Your task to perform on an android device: Go to calendar. Show me events next week Image 0: 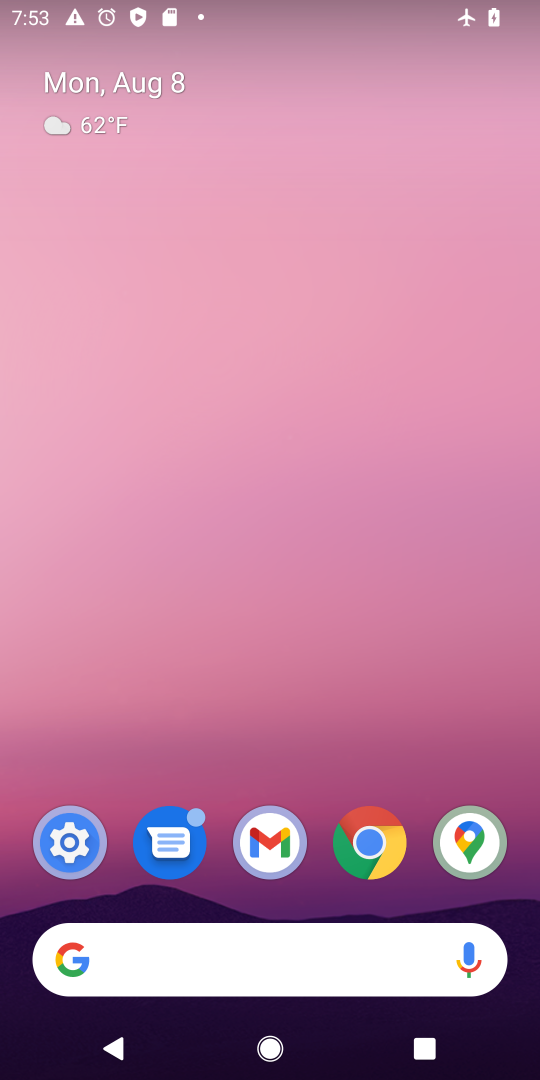
Step 0: drag from (504, 1011) to (428, 192)
Your task to perform on an android device: Go to calendar. Show me events next week Image 1: 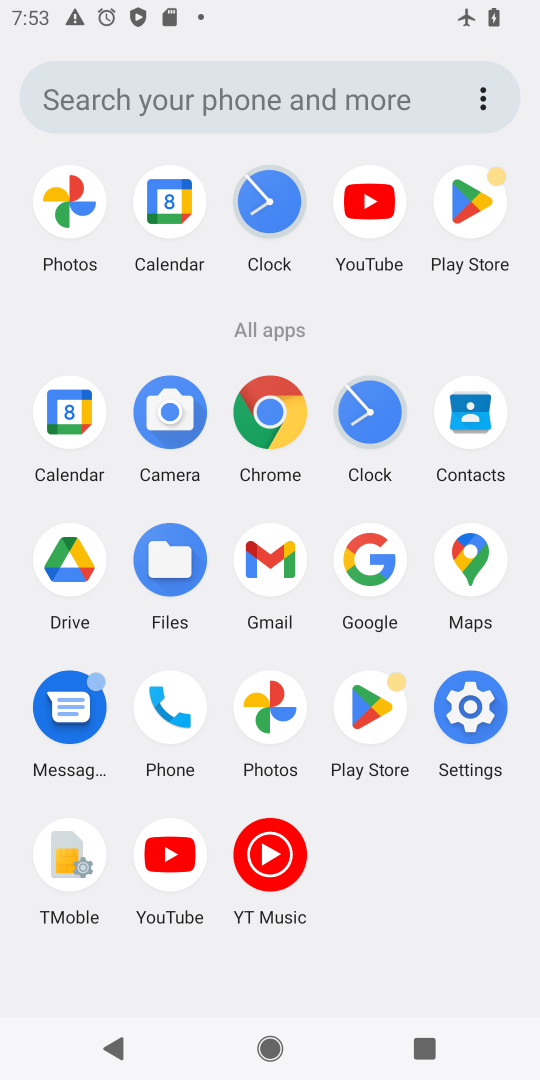
Step 1: click (53, 414)
Your task to perform on an android device: Go to calendar. Show me events next week Image 2: 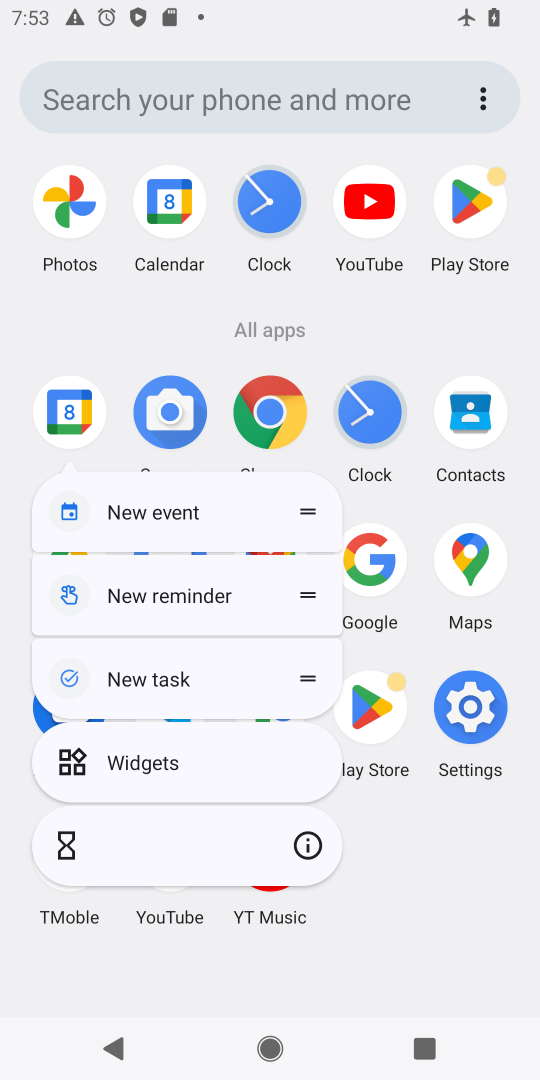
Step 2: click (65, 407)
Your task to perform on an android device: Go to calendar. Show me events next week Image 3: 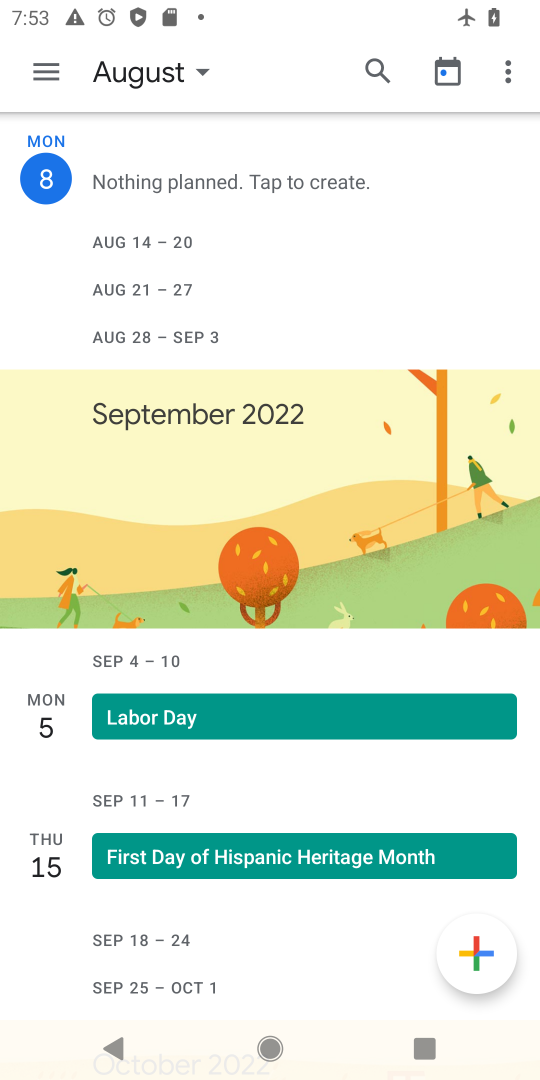
Step 3: drag from (294, 938) to (262, 418)
Your task to perform on an android device: Go to calendar. Show me events next week Image 4: 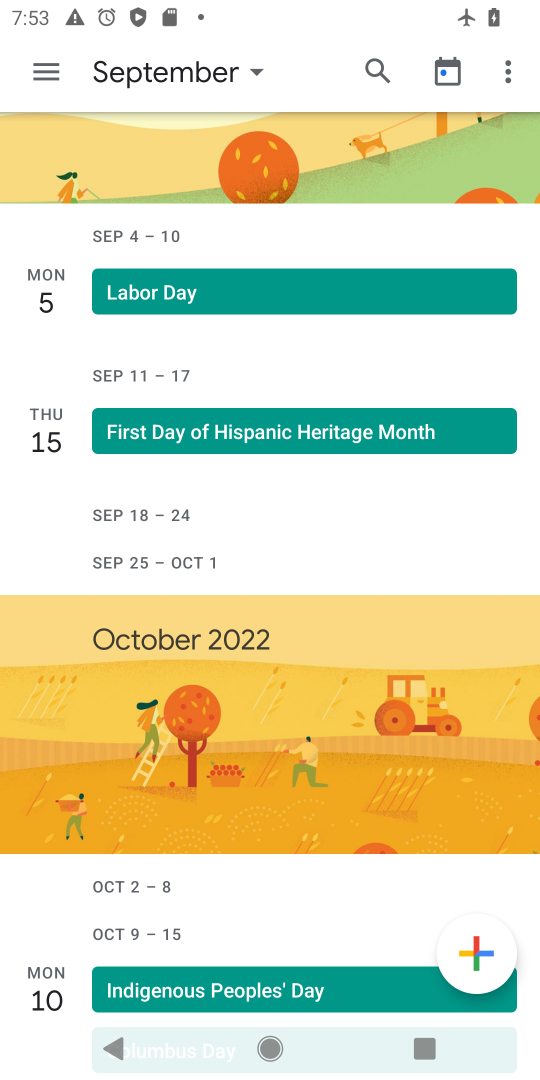
Step 4: drag from (337, 211) to (326, 869)
Your task to perform on an android device: Go to calendar. Show me events next week Image 5: 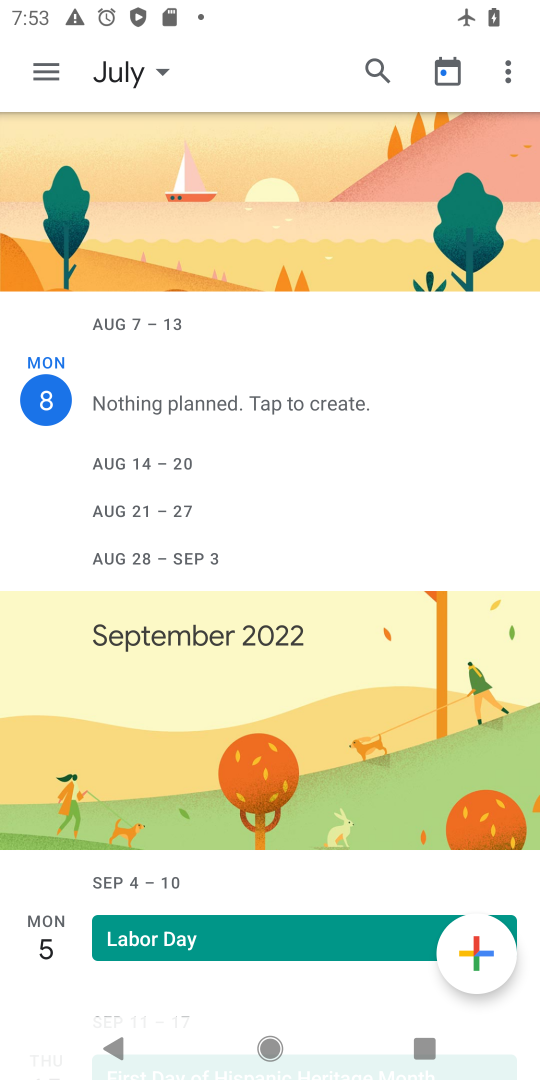
Step 5: click (155, 70)
Your task to perform on an android device: Go to calendar. Show me events next week Image 6: 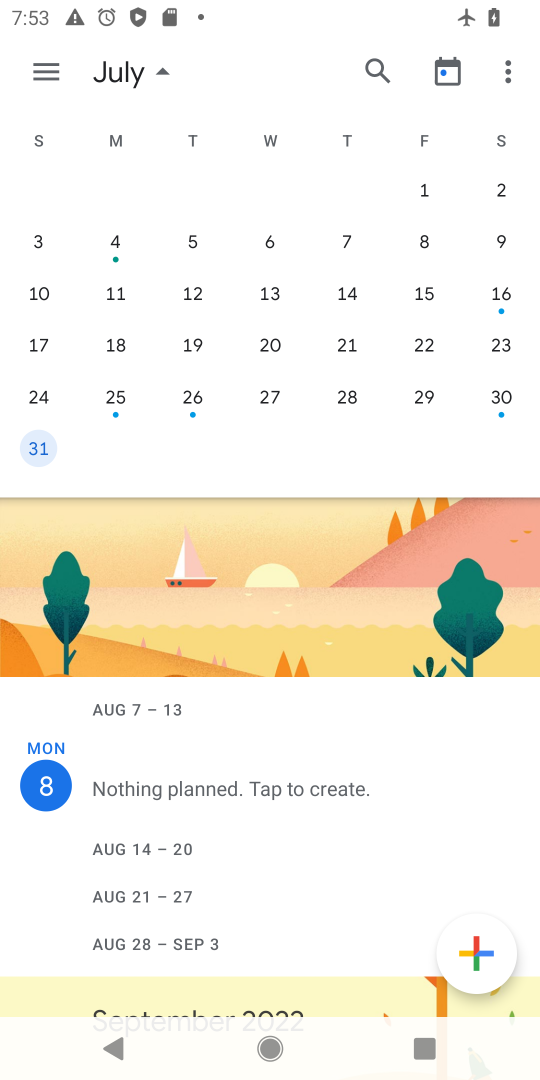
Step 6: drag from (456, 320) to (29, 369)
Your task to perform on an android device: Go to calendar. Show me events next week Image 7: 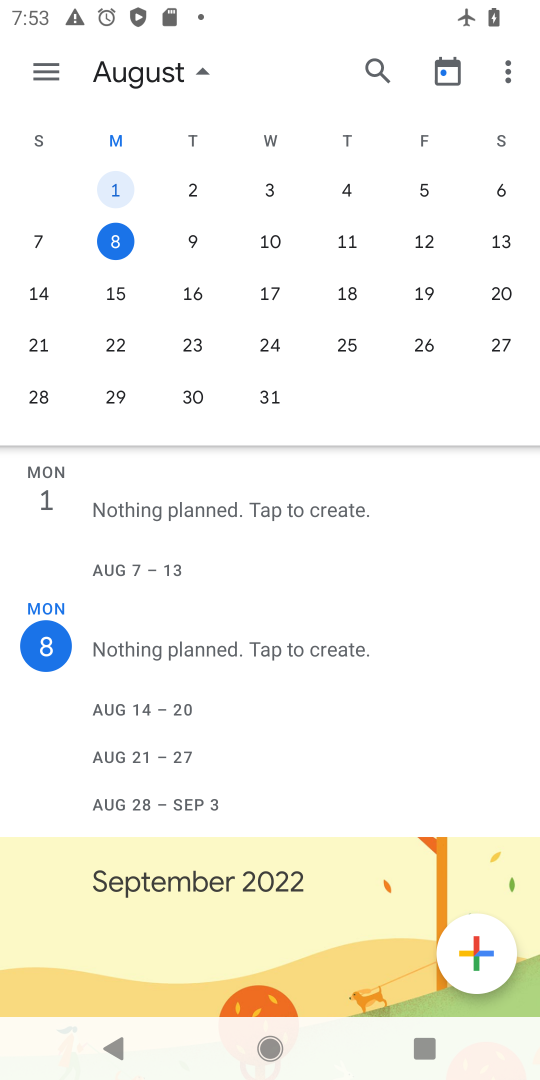
Step 7: click (180, 301)
Your task to perform on an android device: Go to calendar. Show me events next week Image 8: 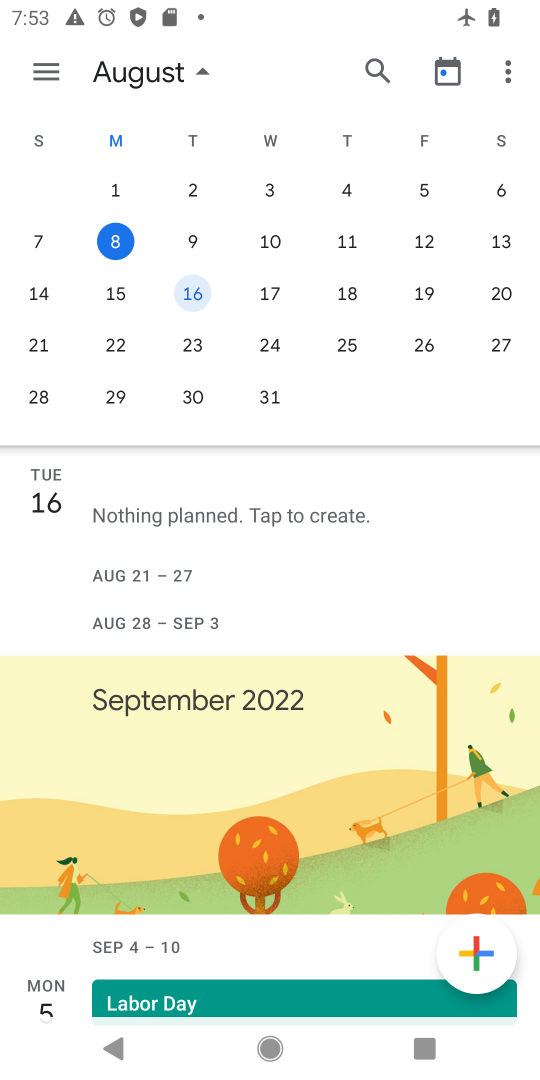
Step 8: click (42, 62)
Your task to perform on an android device: Go to calendar. Show me events next week Image 9: 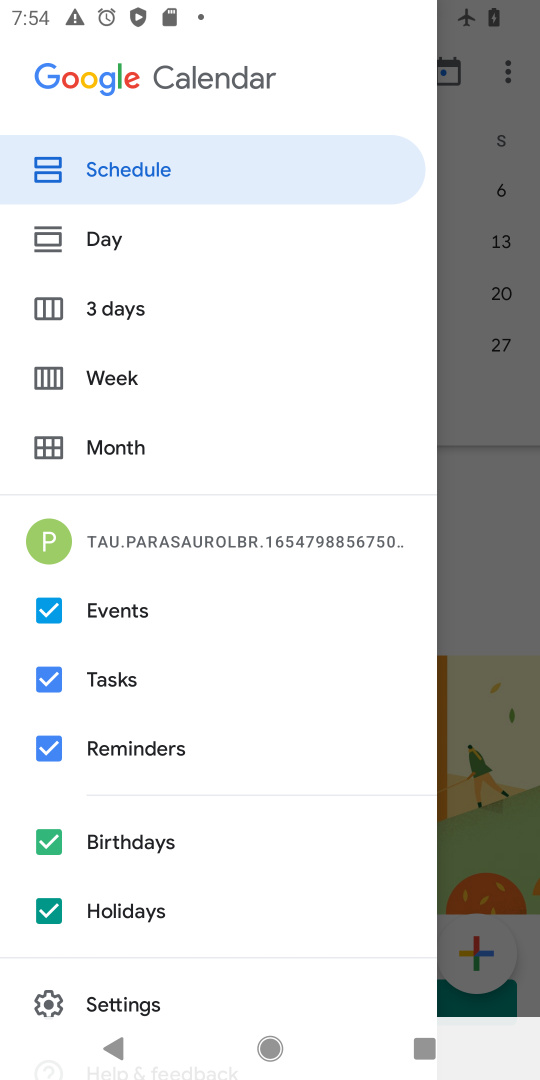
Step 9: click (123, 375)
Your task to perform on an android device: Go to calendar. Show me events next week Image 10: 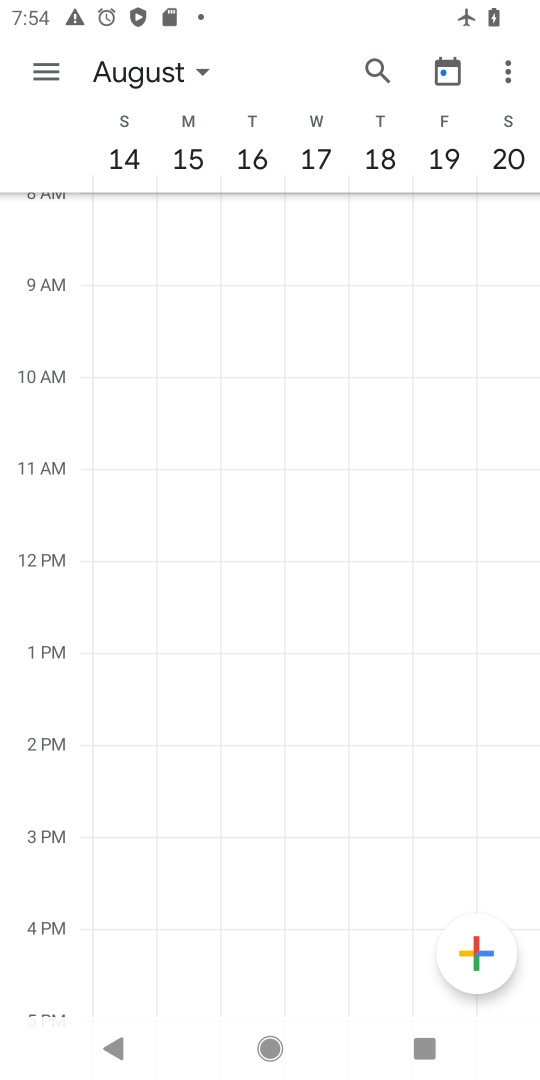
Step 10: click (43, 65)
Your task to perform on an android device: Go to calendar. Show me events next week Image 11: 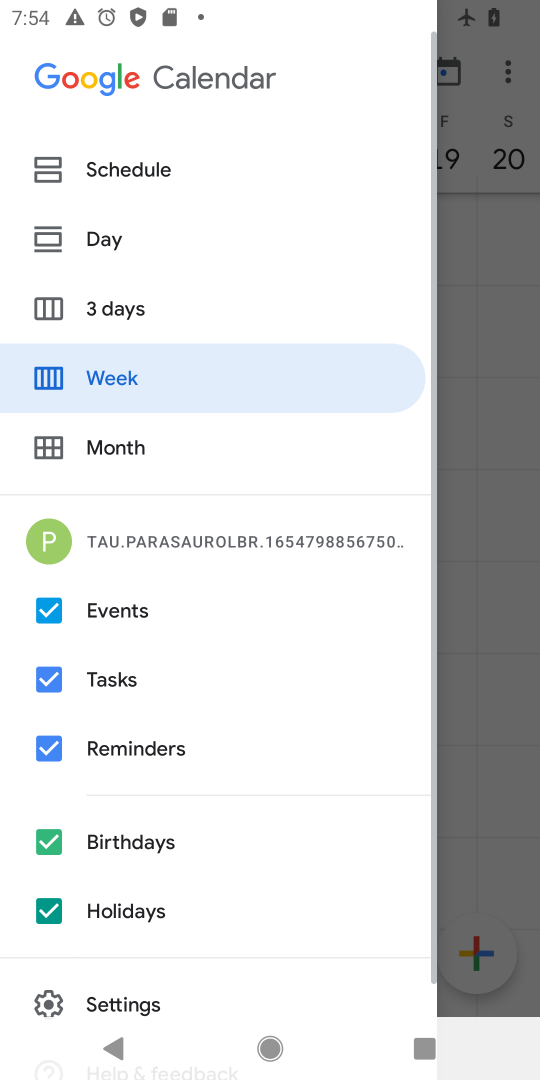
Step 11: click (145, 166)
Your task to perform on an android device: Go to calendar. Show me events next week Image 12: 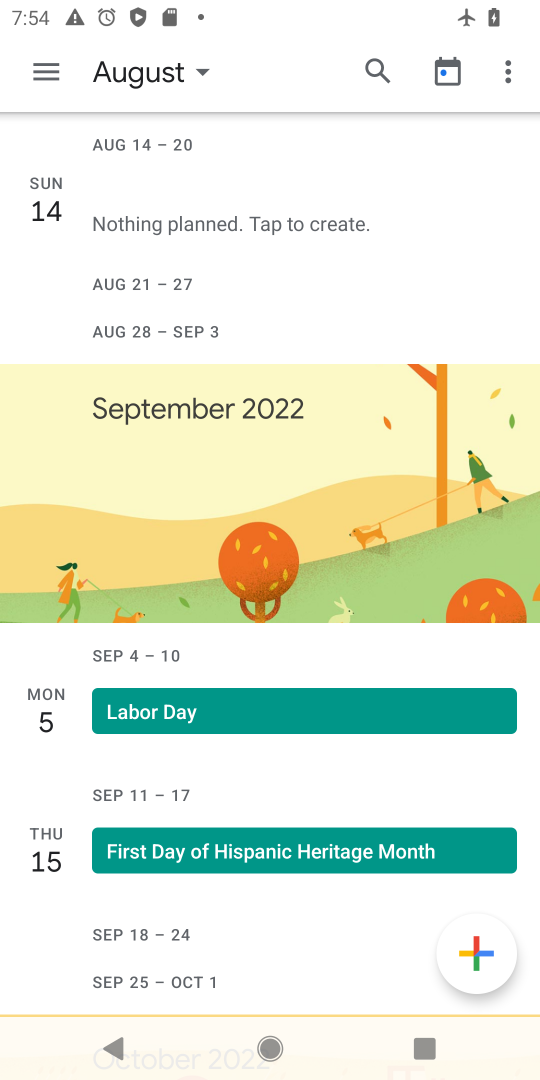
Step 12: task complete